Your task to perform on an android device: Look up the best rated bike on Walmart Image 0: 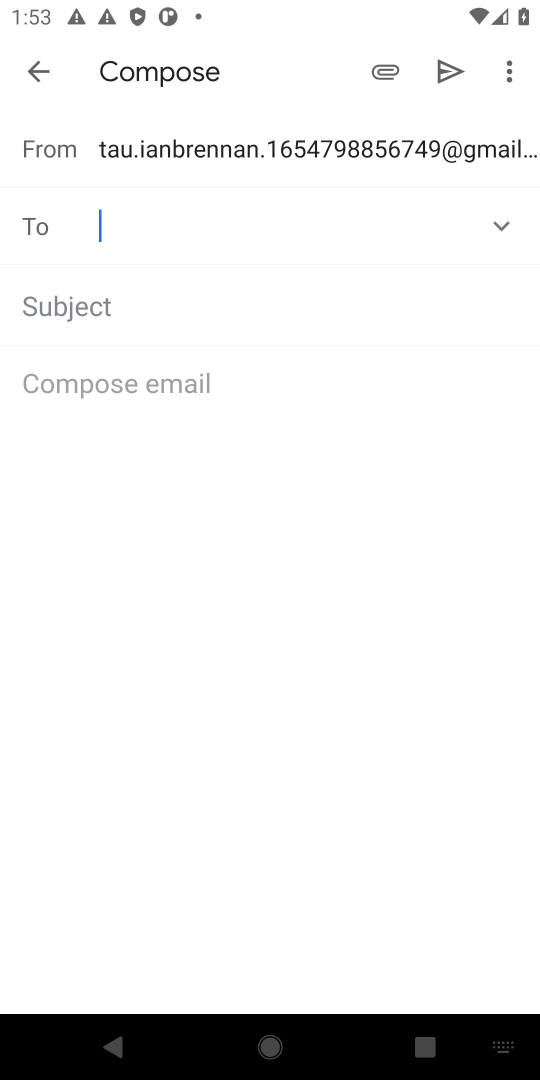
Step 0: press home button
Your task to perform on an android device: Look up the best rated bike on Walmart Image 1: 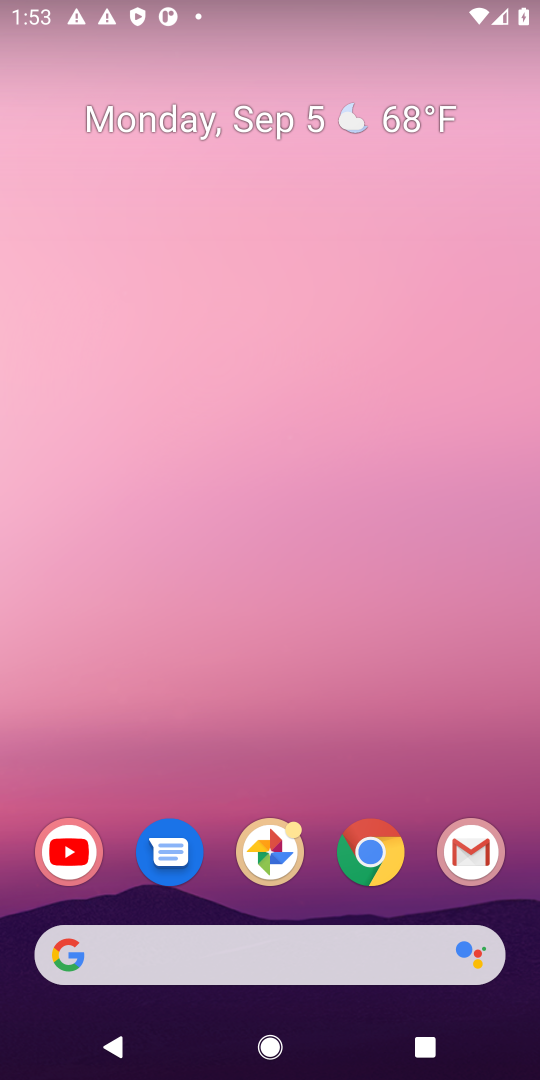
Step 1: click (366, 852)
Your task to perform on an android device: Look up the best rated bike on Walmart Image 2: 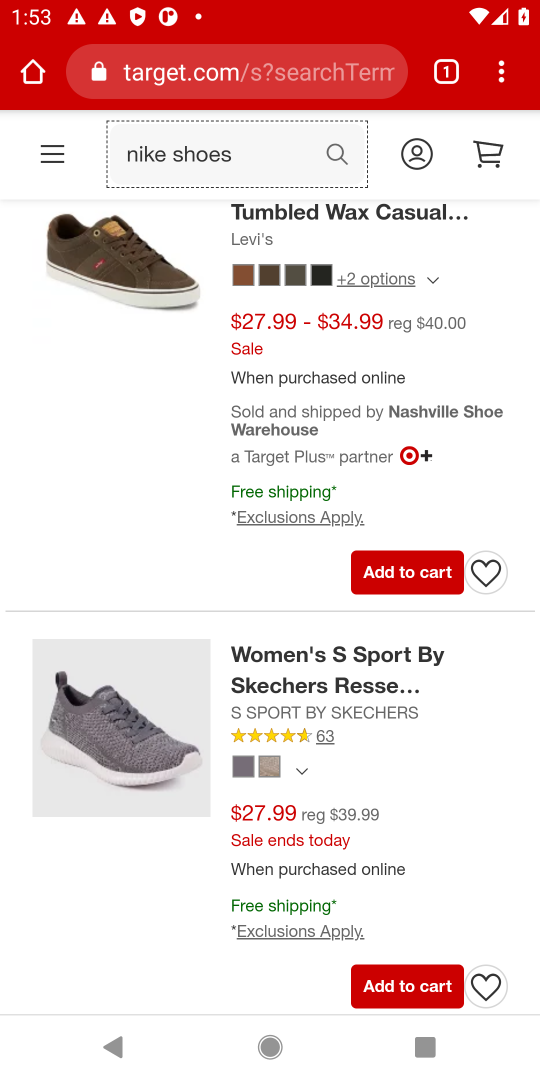
Step 2: click (297, 48)
Your task to perform on an android device: Look up the best rated bike on Walmart Image 3: 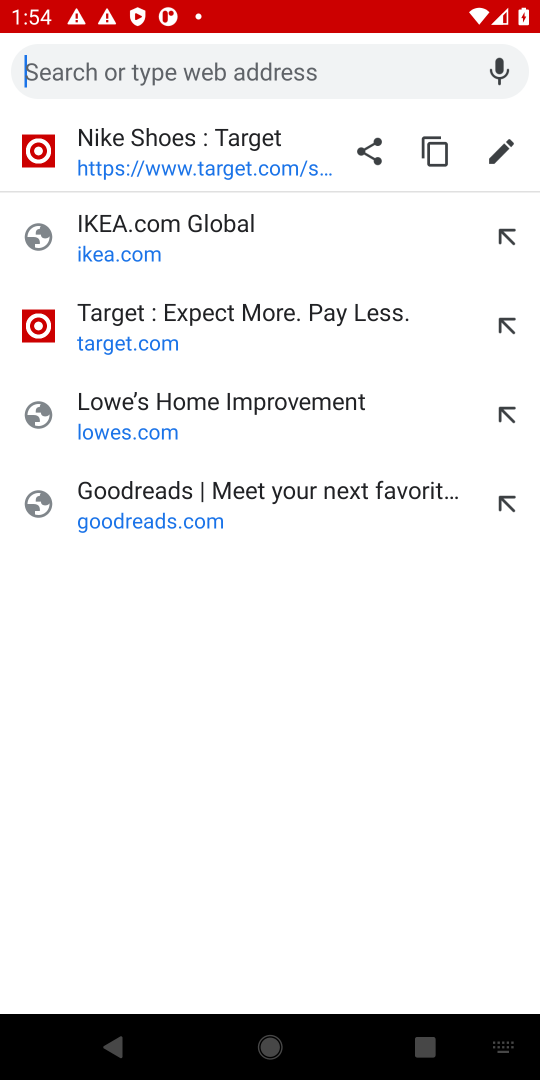
Step 3: type "walmart"
Your task to perform on an android device: Look up the best rated bike on Walmart Image 4: 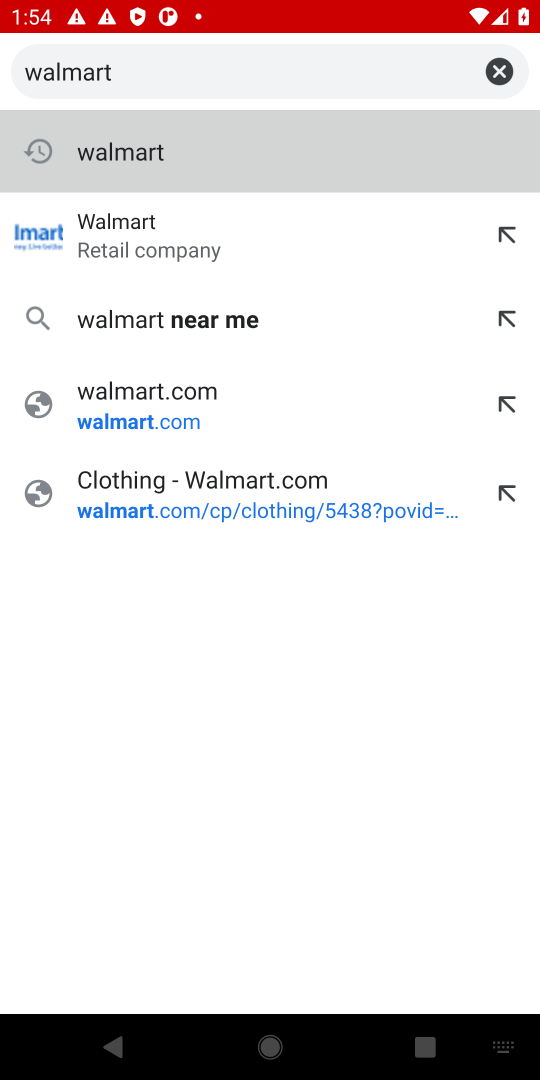
Step 4: click (124, 244)
Your task to perform on an android device: Look up the best rated bike on Walmart Image 5: 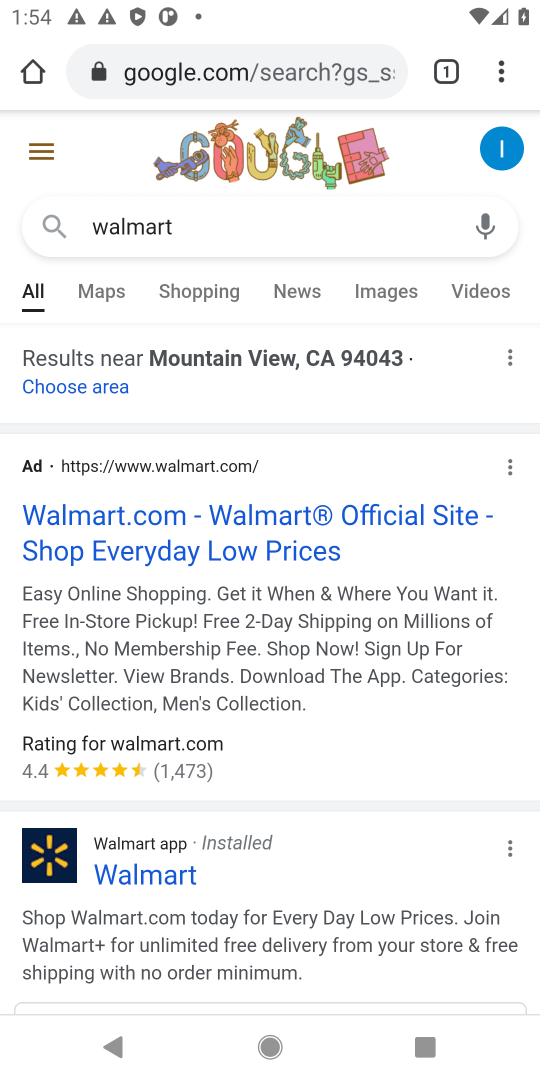
Step 5: click (103, 523)
Your task to perform on an android device: Look up the best rated bike on Walmart Image 6: 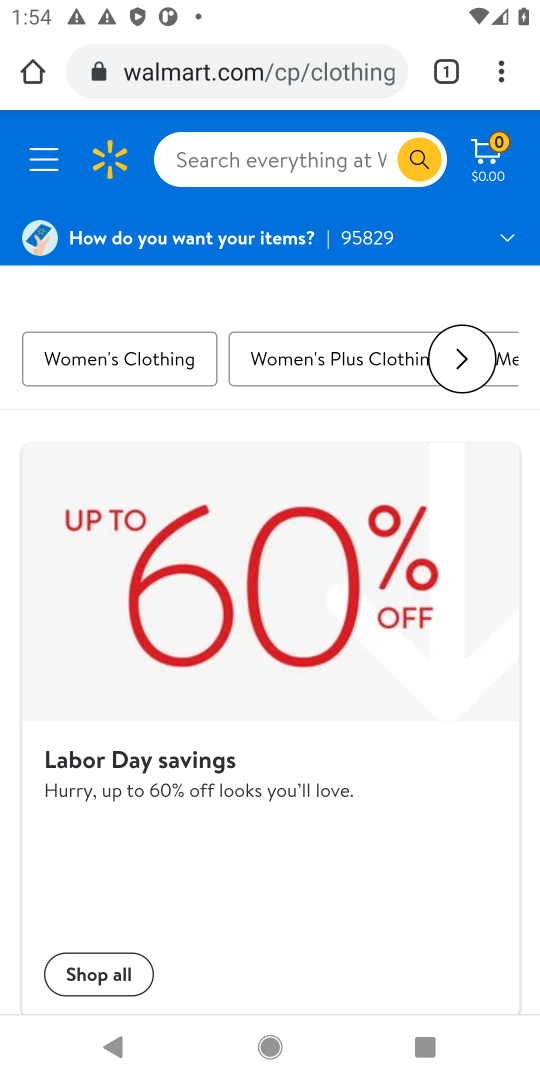
Step 6: click (244, 148)
Your task to perform on an android device: Look up the best rated bike on Walmart Image 7: 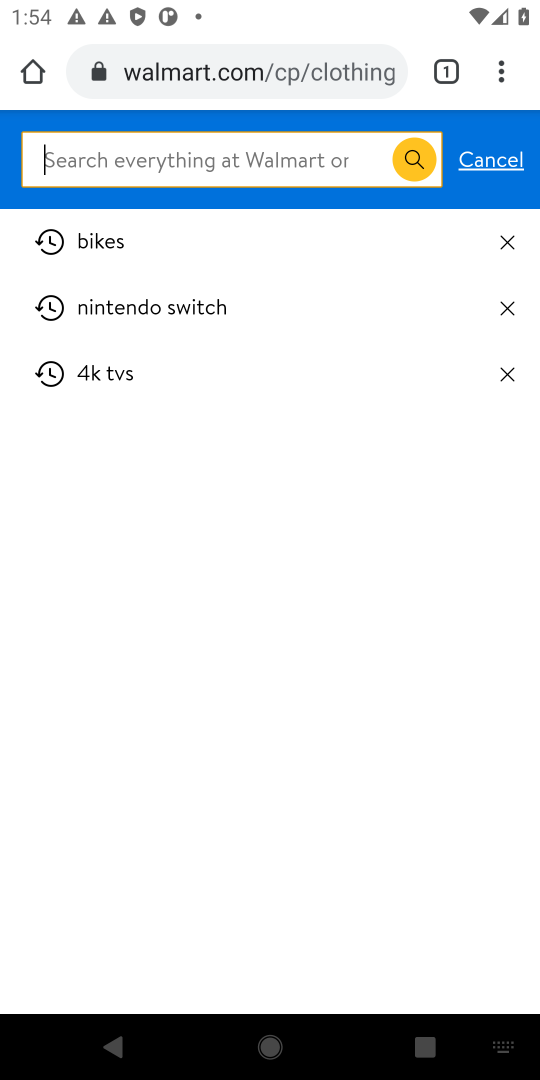
Step 7: click (81, 245)
Your task to perform on an android device: Look up the best rated bike on Walmart Image 8: 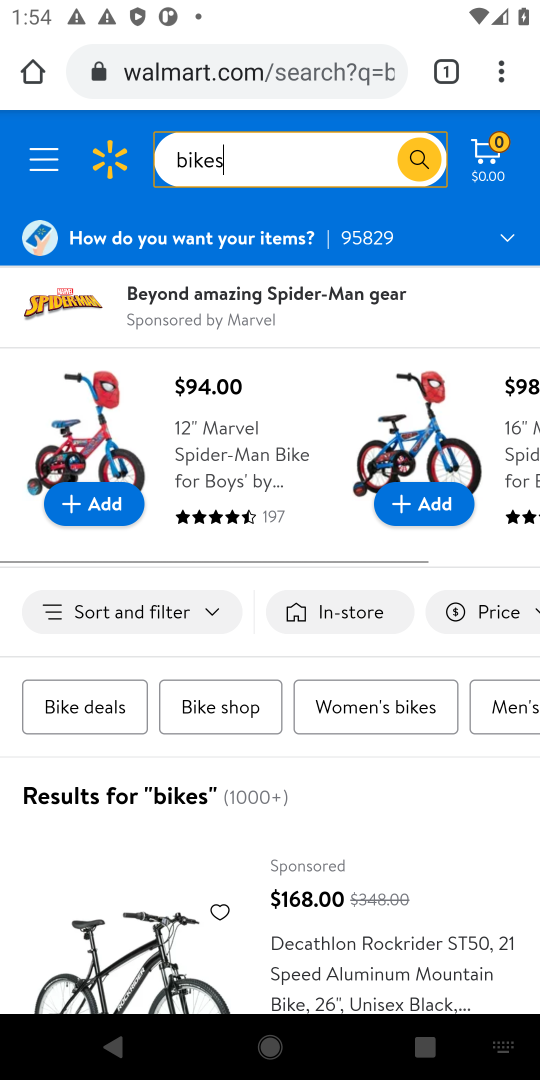
Step 8: click (203, 614)
Your task to perform on an android device: Look up the best rated bike on Walmart Image 9: 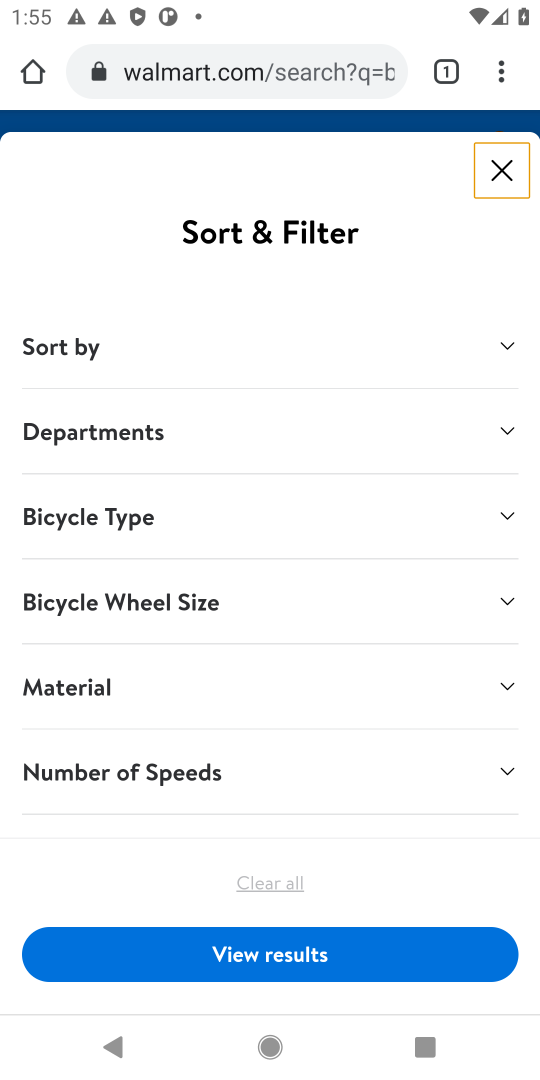
Step 9: click (507, 341)
Your task to perform on an android device: Look up the best rated bike on Walmart Image 10: 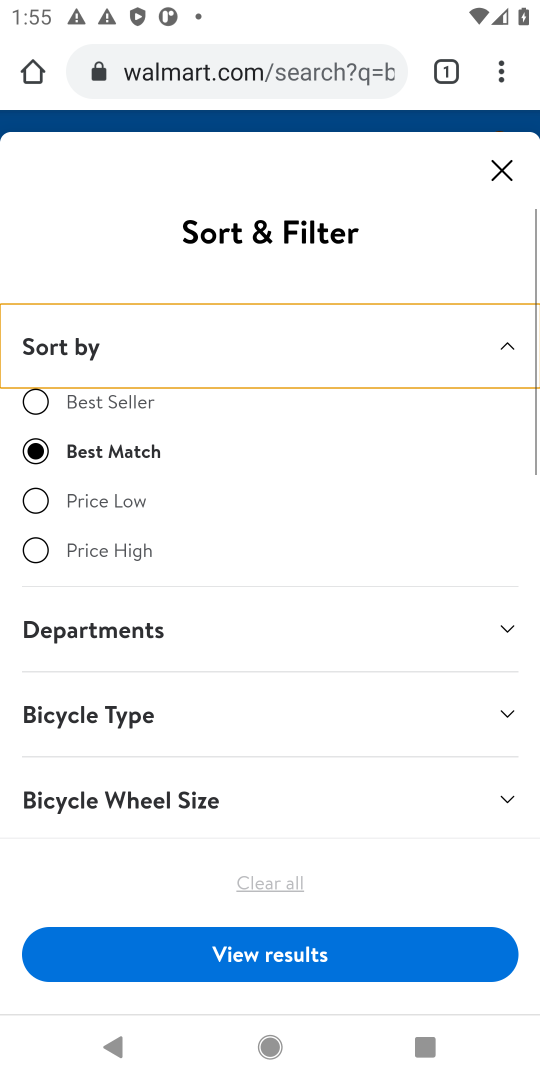
Step 10: click (506, 340)
Your task to perform on an android device: Look up the best rated bike on Walmart Image 11: 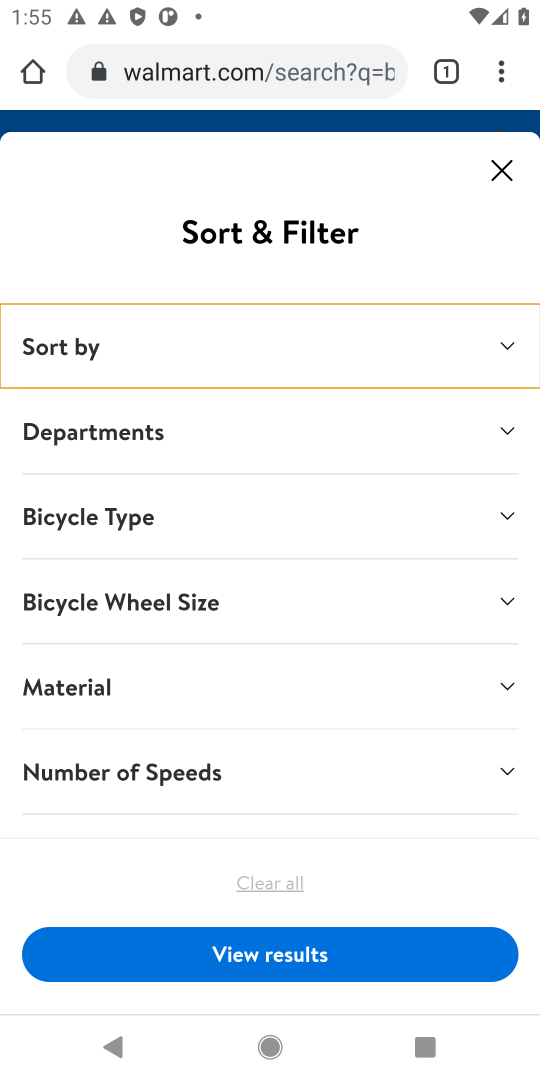
Step 11: drag from (422, 817) to (399, 160)
Your task to perform on an android device: Look up the best rated bike on Walmart Image 12: 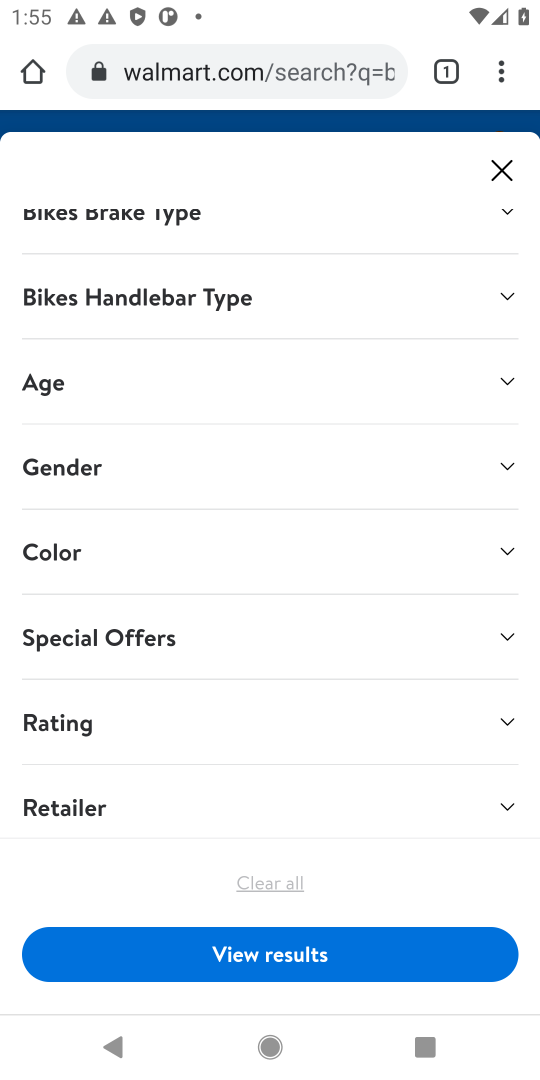
Step 12: click (506, 717)
Your task to perform on an android device: Look up the best rated bike on Walmart Image 13: 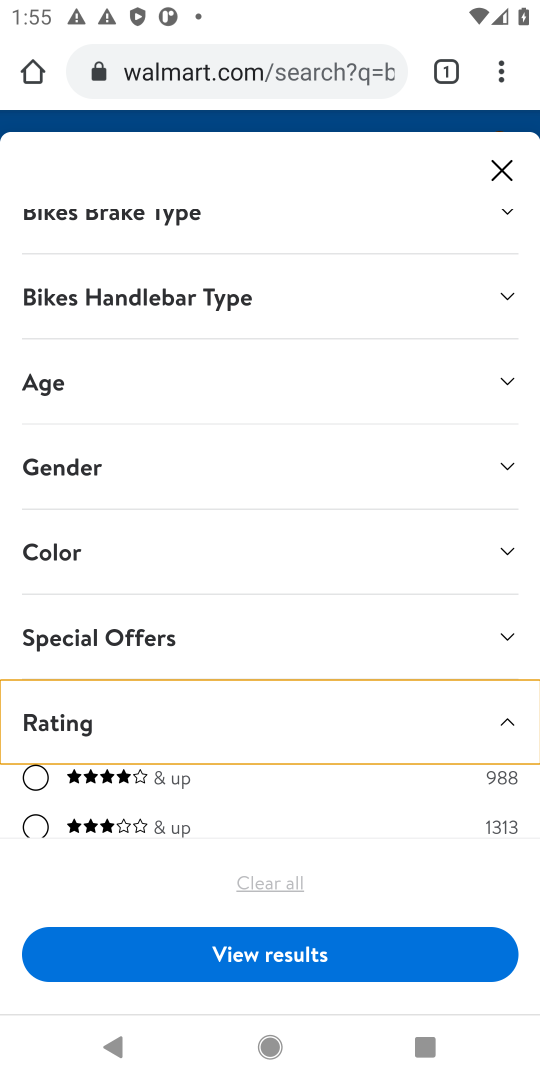
Step 13: drag from (42, 780) to (60, 646)
Your task to perform on an android device: Look up the best rated bike on Walmart Image 14: 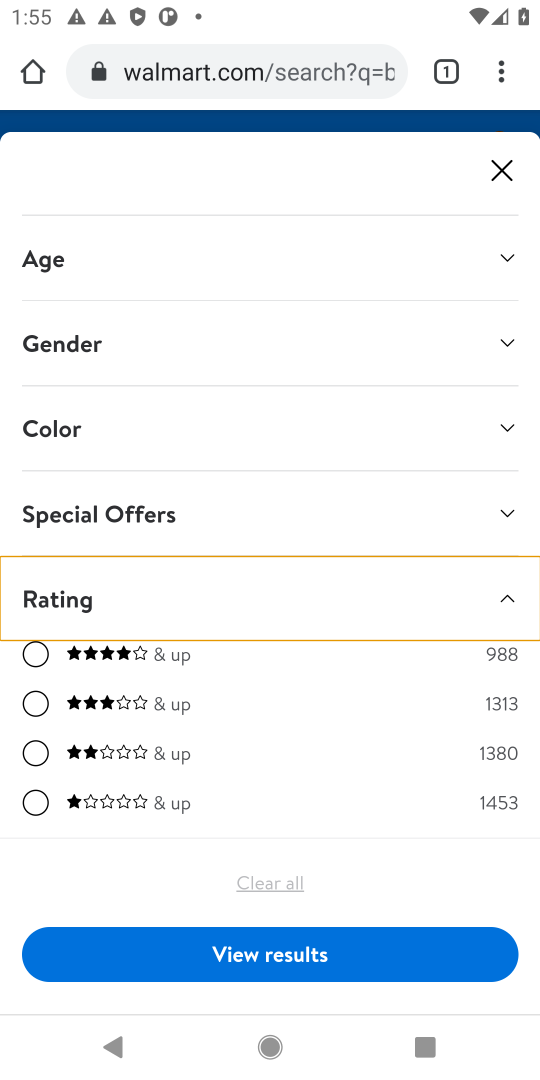
Step 14: click (36, 652)
Your task to perform on an android device: Look up the best rated bike on Walmart Image 15: 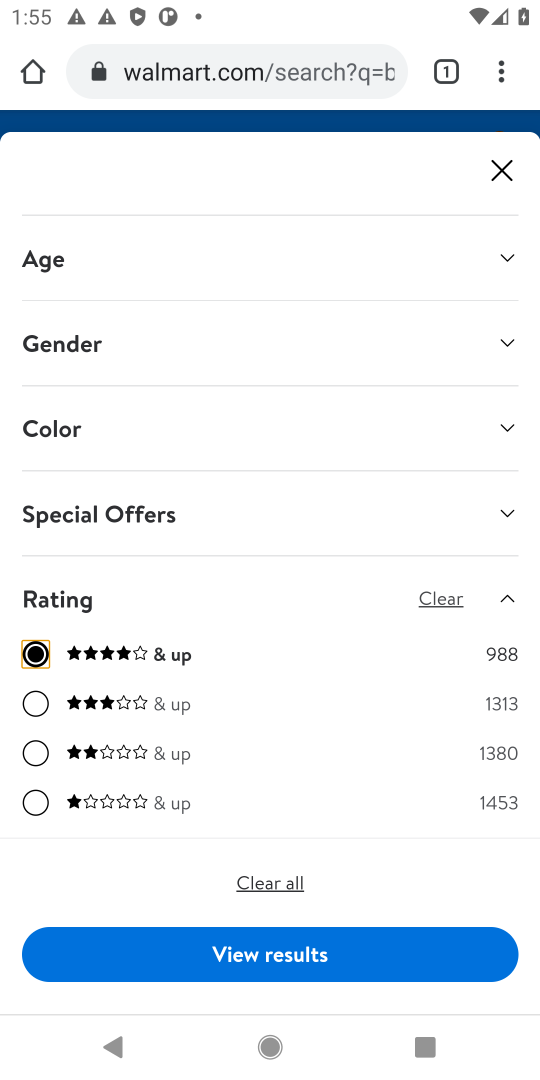
Step 15: click (264, 954)
Your task to perform on an android device: Look up the best rated bike on Walmart Image 16: 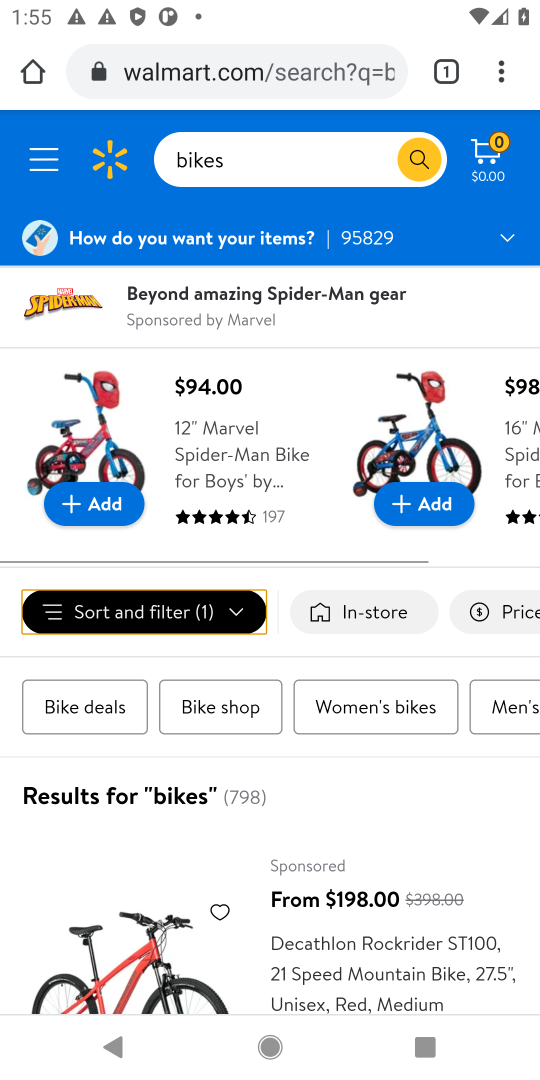
Step 16: task complete